Your task to perform on an android device: Open the web browser Image 0: 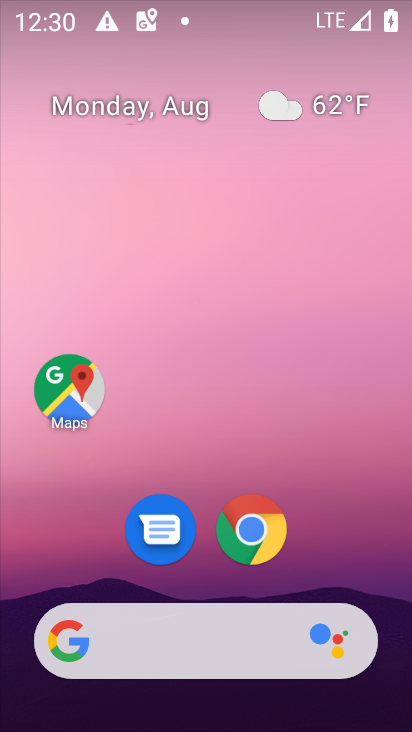
Step 0: click (261, 527)
Your task to perform on an android device: Open the web browser Image 1: 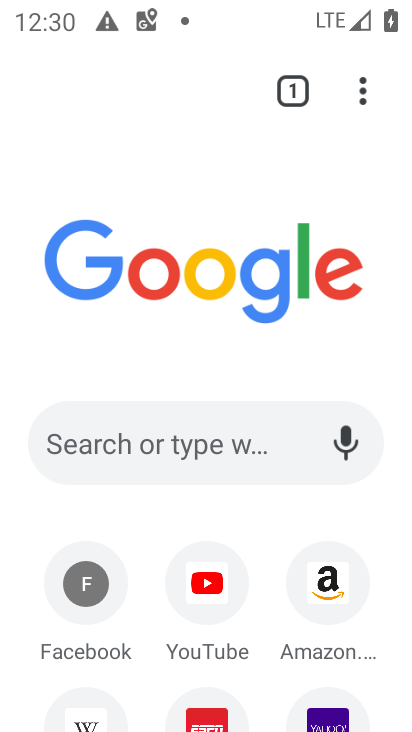
Step 1: task complete